Your task to perform on an android device: empty trash in the gmail app Image 0: 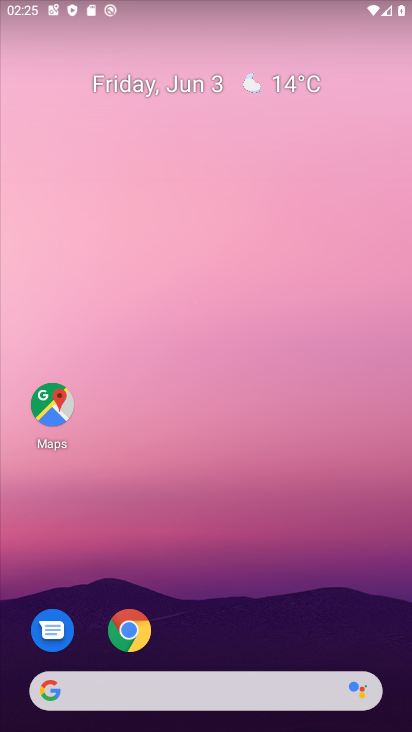
Step 0: drag from (357, 567) to (282, 281)
Your task to perform on an android device: empty trash in the gmail app Image 1: 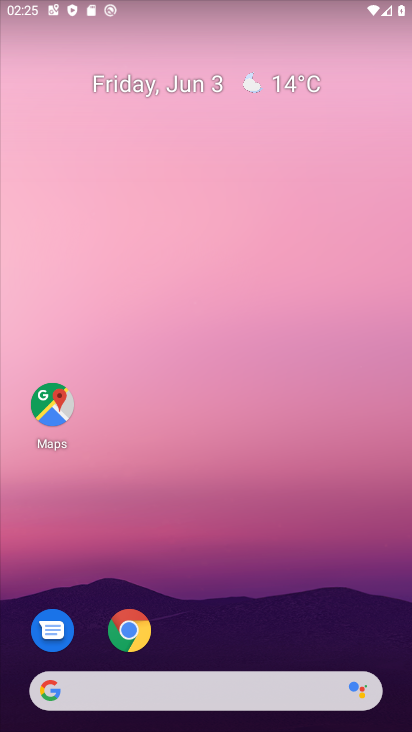
Step 1: drag from (388, 676) to (341, 332)
Your task to perform on an android device: empty trash in the gmail app Image 2: 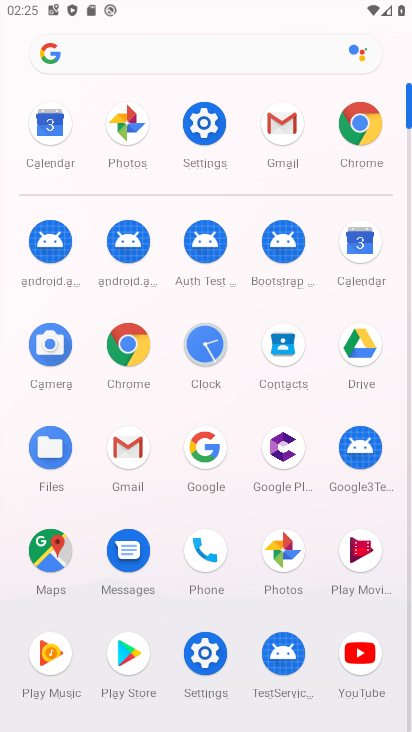
Step 2: click (129, 444)
Your task to perform on an android device: empty trash in the gmail app Image 3: 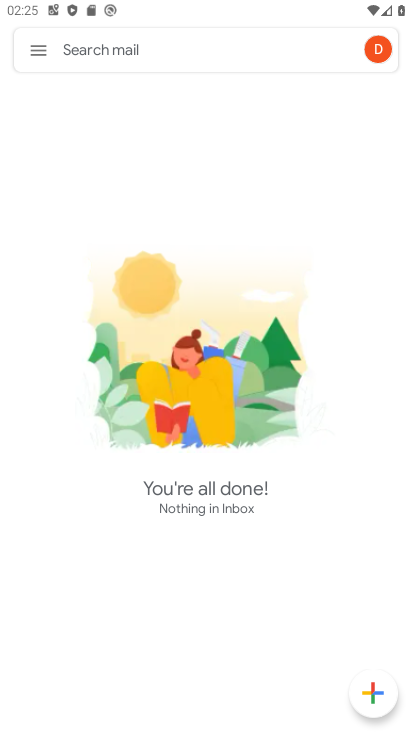
Step 3: click (40, 49)
Your task to perform on an android device: empty trash in the gmail app Image 4: 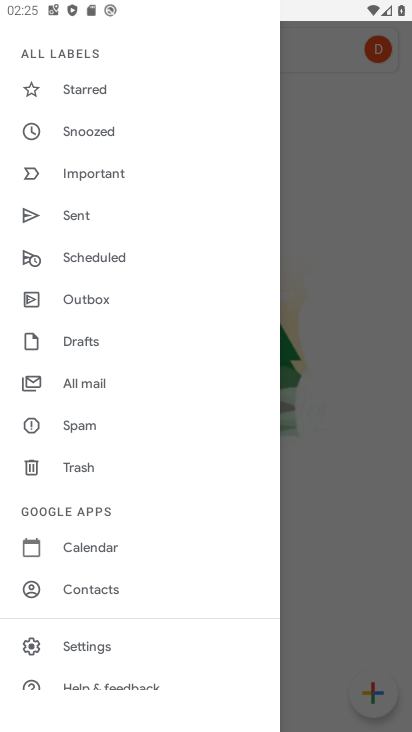
Step 4: click (69, 471)
Your task to perform on an android device: empty trash in the gmail app Image 5: 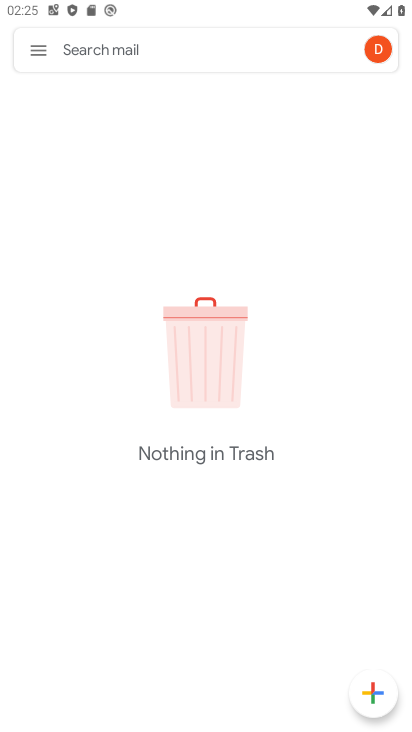
Step 5: task complete